Your task to perform on an android device: change notifications settings Image 0: 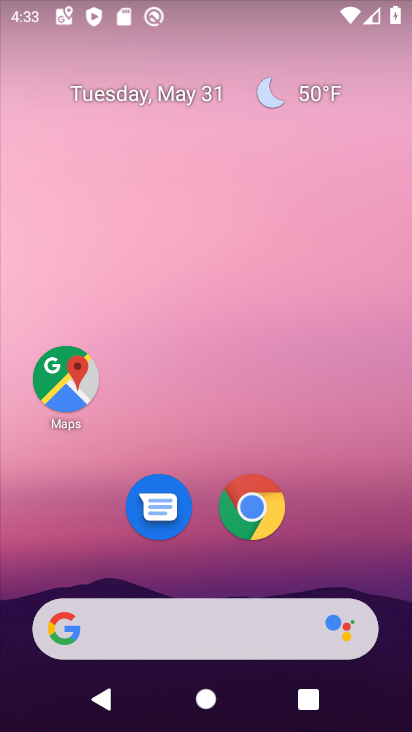
Step 0: drag from (312, 527) to (341, 32)
Your task to perform on an android device: change notifications settings Image 1: 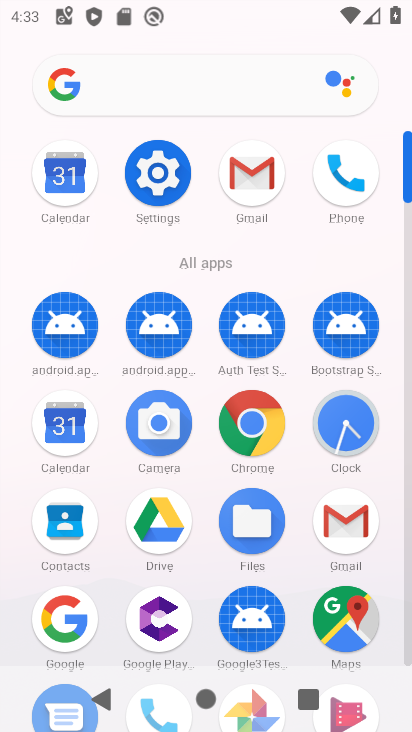
Step 1: click (151, 163)
Your task to perform on an android device: change notifications settings Image 2: 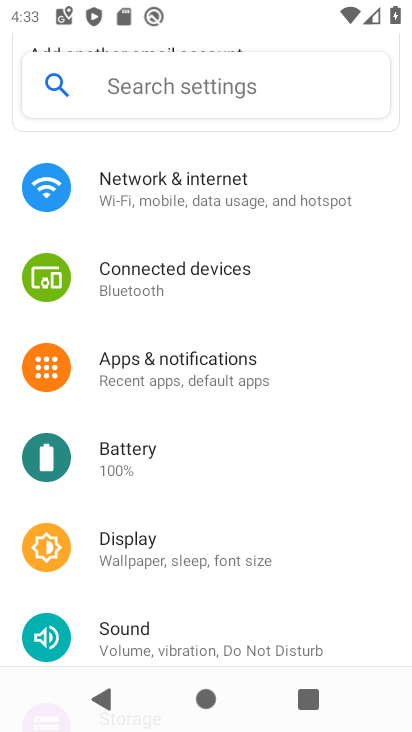
Step 2: click (236, 364)
Your task to perform on an android device: change notifications settings Image 3: 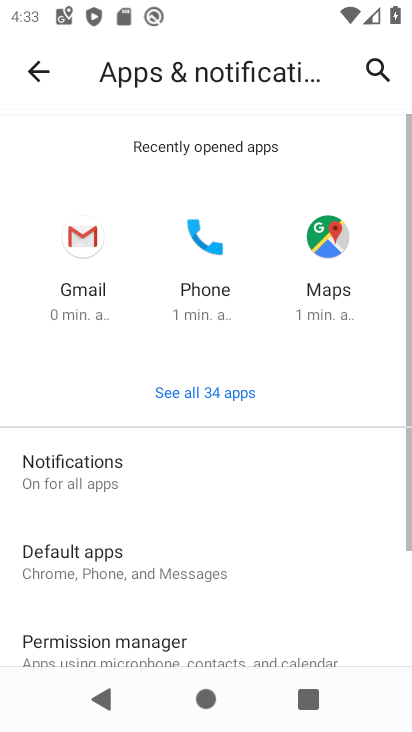
Step 3: click (232, 476)
Your task to perform on an android device: change notifications settings Image 4: 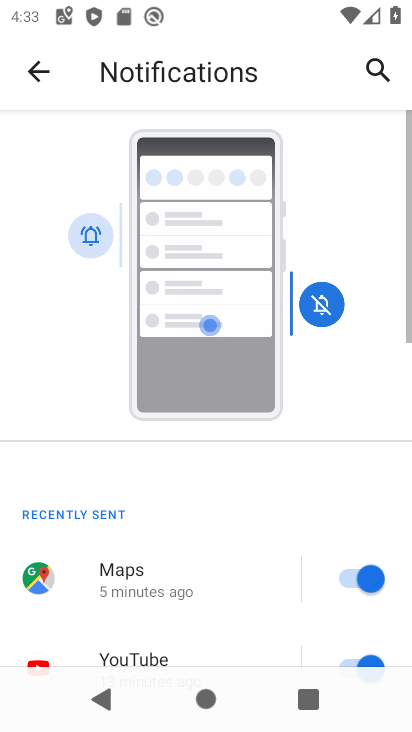
Step 4: drag from (264, 509) to (273, 6)
Your task to perform on an android device: change notifications settings Image 5: 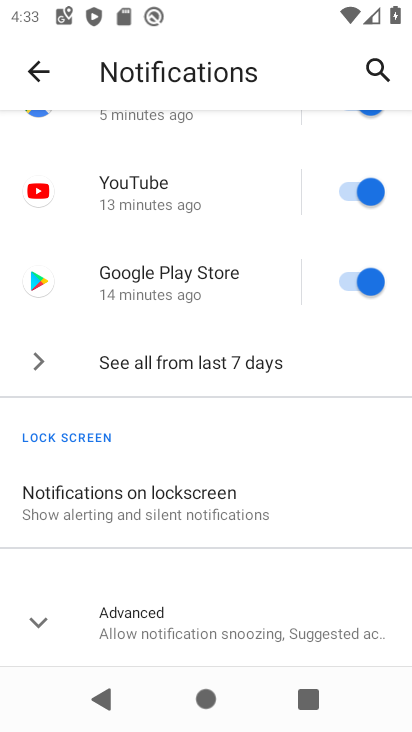
Step 5: click (248, 357)
Your task to perform on an android device: change notifications settings Image 6: 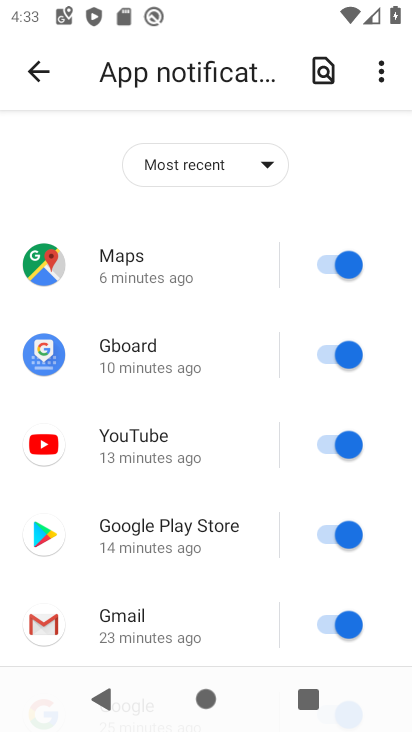
Step 6: click (331, 260)
Your task to perform on an android device: change notifications settings Image 7: 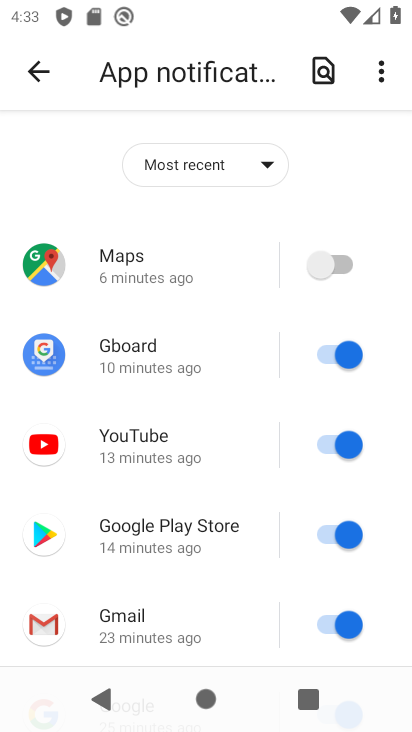
Step 7: click (338, 355)
Your task to perform on an android device: change notifications settings Image 8: 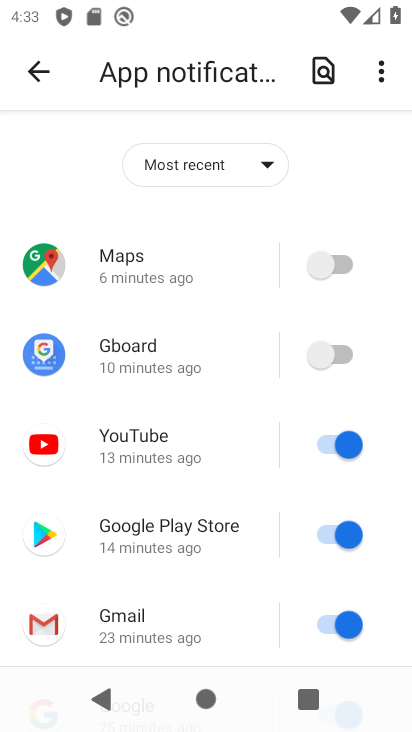
Step 8: click (339, 424)
Your task to perform on an android device: change notifications settings Image 9: 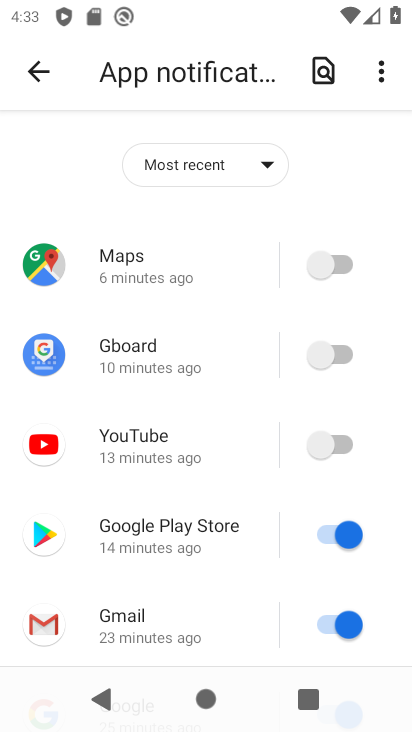
Step 9: click (339, 525)
Your task to perform on an android device: change notifications settings Image 10: 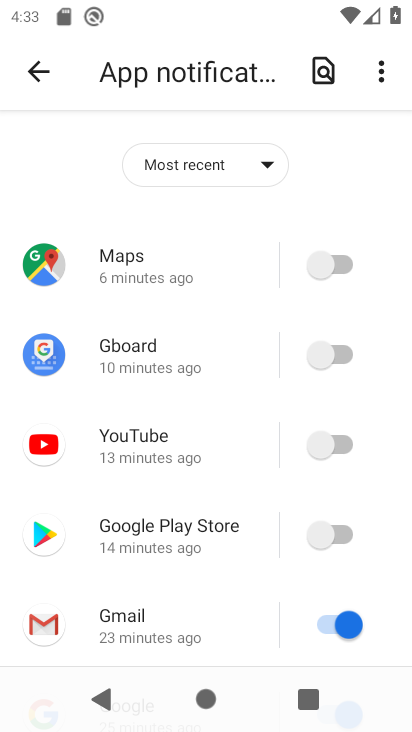
Step 10: click (338, 617)
Your task to perform on an android device: change notifications settings Image 11: 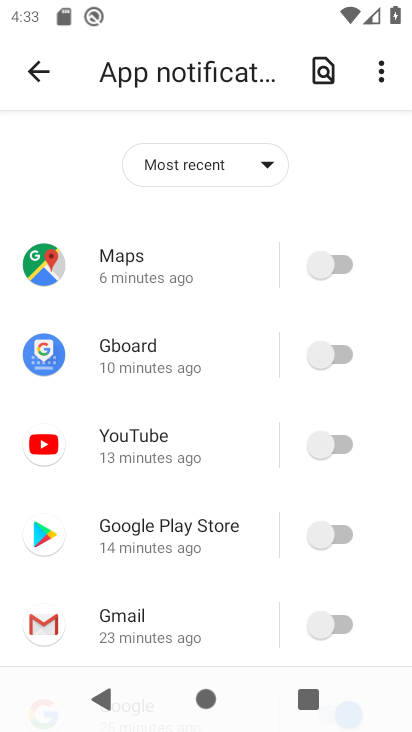
Step 11: drag from (210, 549) to (190, 84)
Your task to perform on an android device: change notifications settings Image 12: 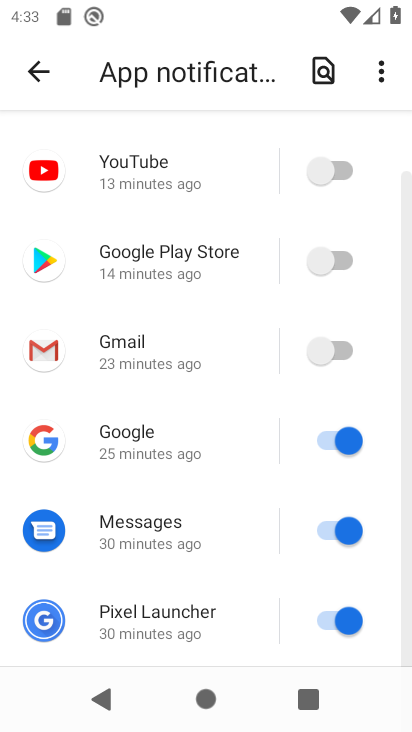
Step 12: click (324, 438)
Your task to perform on an android device: change notifications settings Image 13: 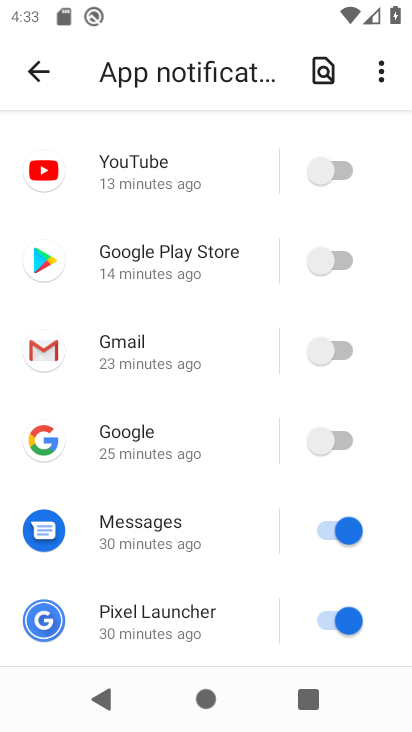
Step 13: click (334, 529)
Your task to perform on an android device: change notifications settings Image 14: 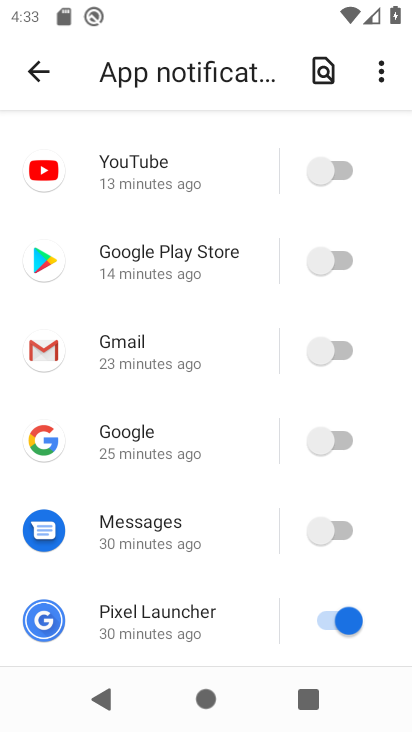
Step 14: click (339, 617)
Your task to perform on an android device: change notifications settings Image 15: 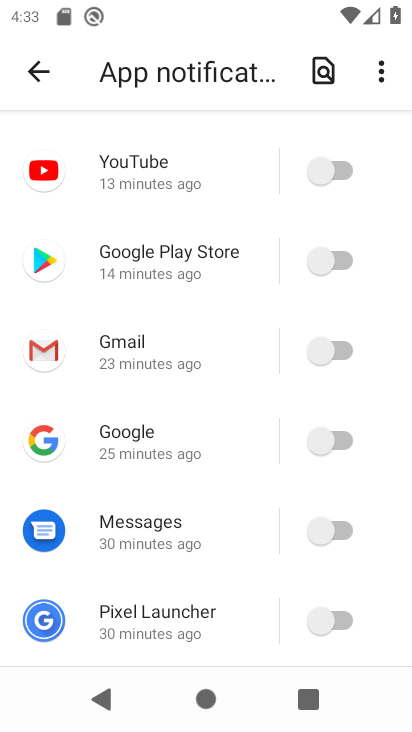
Step 15: task complete